Your task to perform on an android device: open app "Spotify: Music and Podcasts" (install if not already installed), go to login, and select forgot password Image 0: 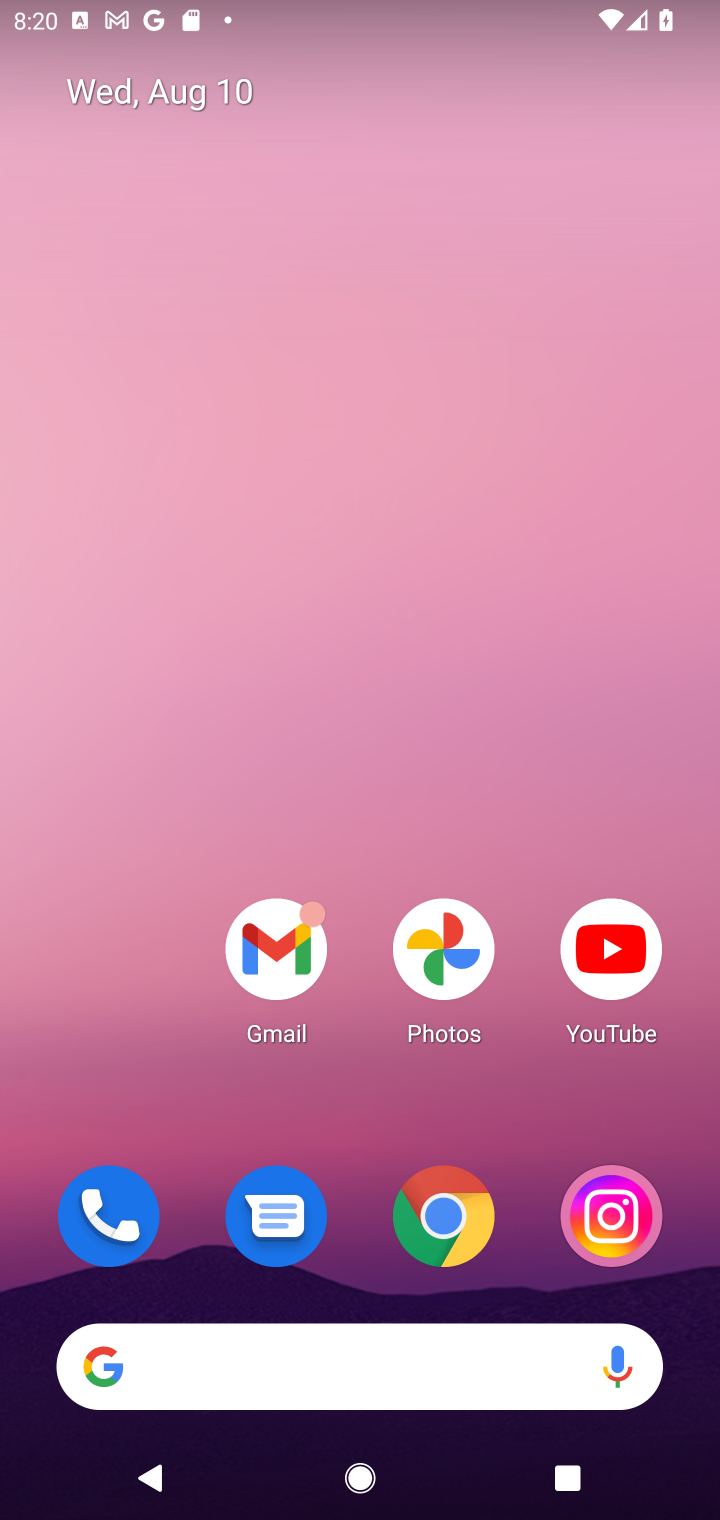
Step 0: drag from (399, 1010) to (542, 0)
Your task to perform on an android device: open app "Spotify: Music and Podcasts" (install if not already installed), go to login, and select forgot password Image 1: 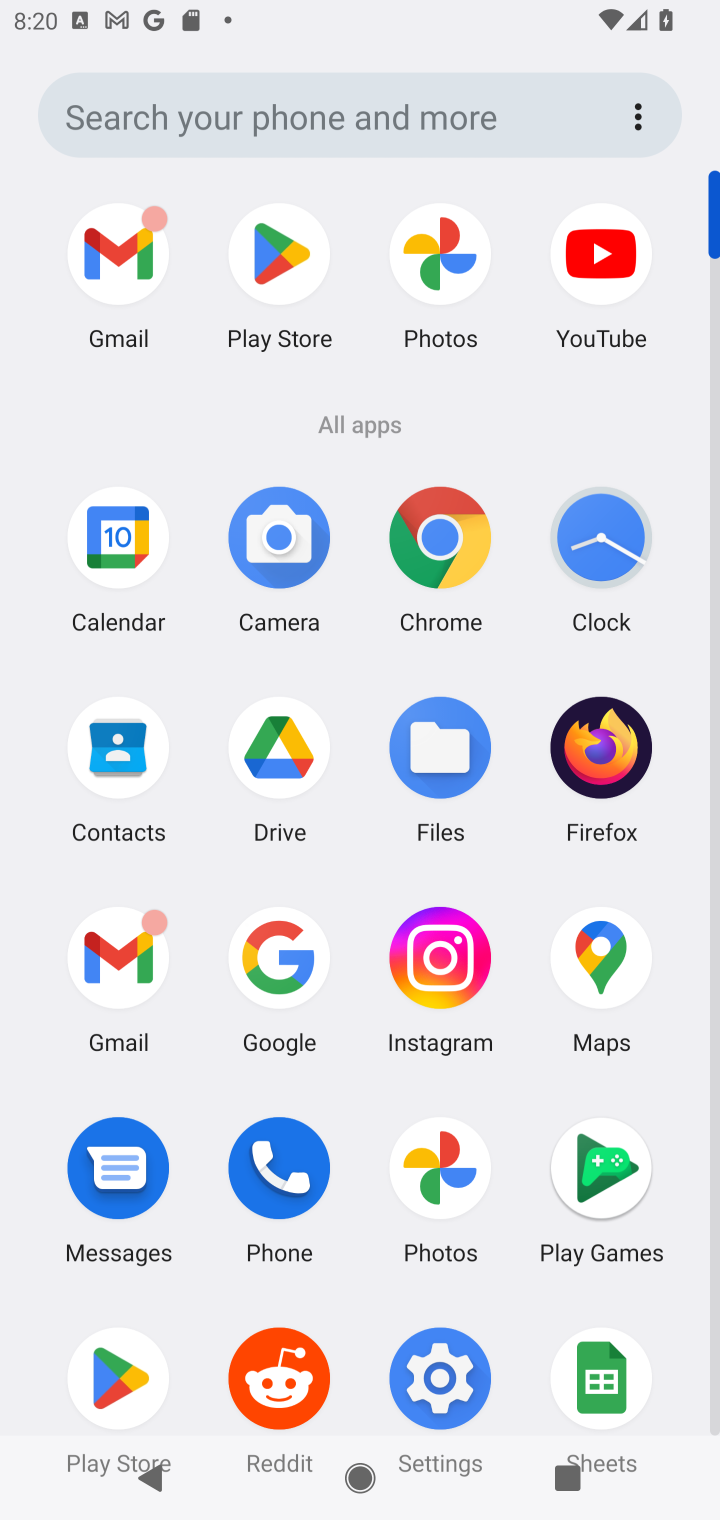
Step 1: click (282, 237)
Your task to perform on an android device: open app "Spotify: Music and Podcasts" (install if not already installed), go to login, and select forgot password Image 2: 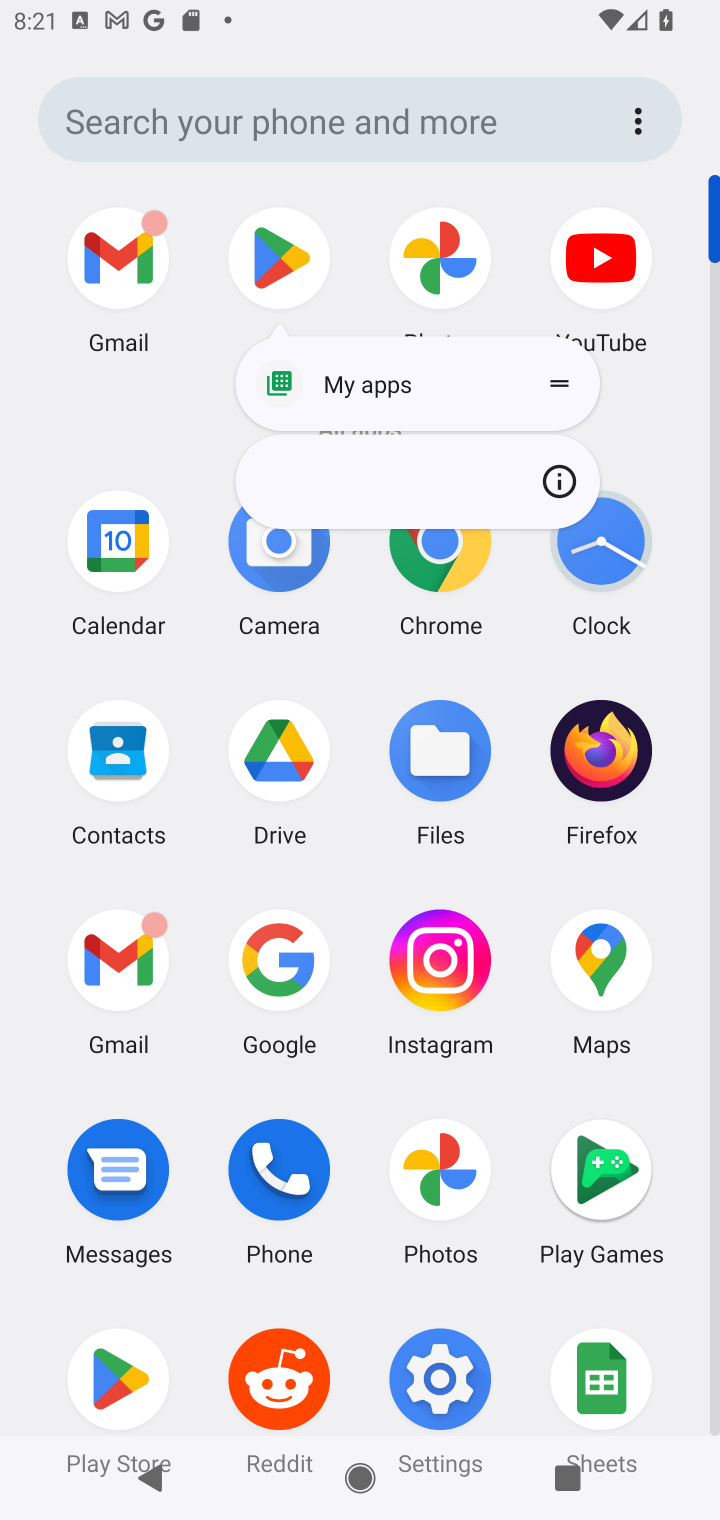
Step 2: click (305, 258)
Your task to perform on an android device: open app "Spotify: Music and Podcasts" (install if not already installed), go to login, and select forgot password Image 3: 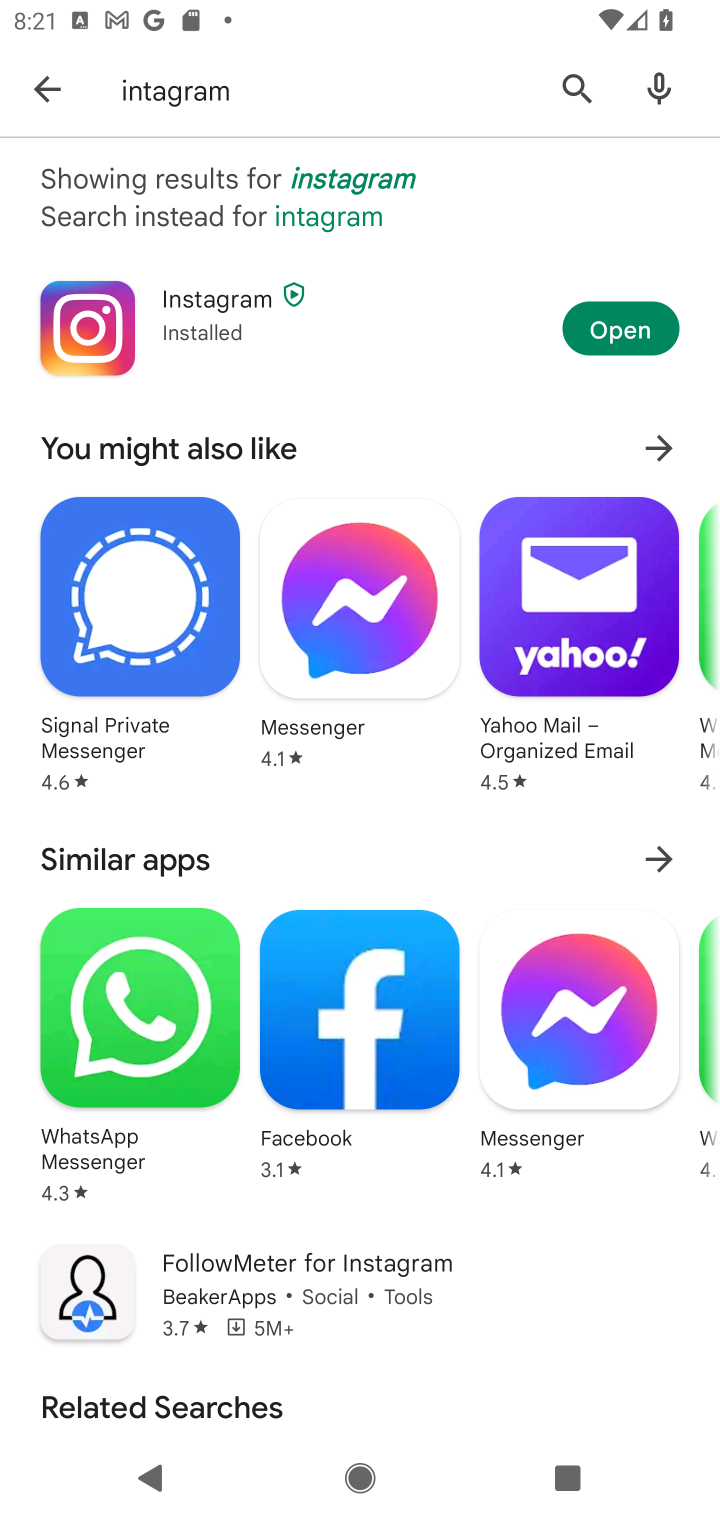
Step 3: click (581, 75)
Your task to perform on an android device: open app "Spotify: Music and Podcasts" (install if not already installed), go to login, and select forgot password Image 4: 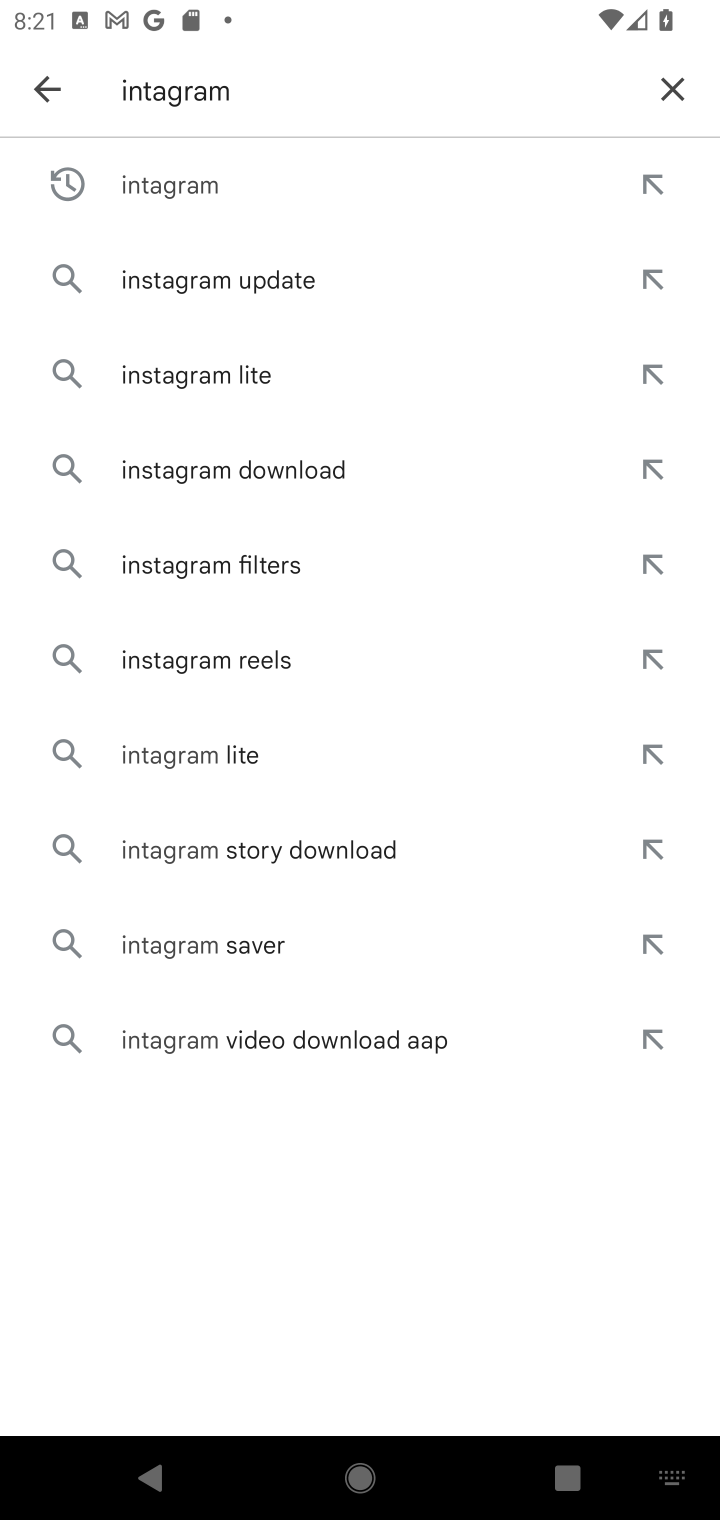
Step 4: click (675, 69)
Your task to perform on an android device: open app "Spotify: Music and Podcasts" (install if not already installed), go to login, and select forgot password Image 5: 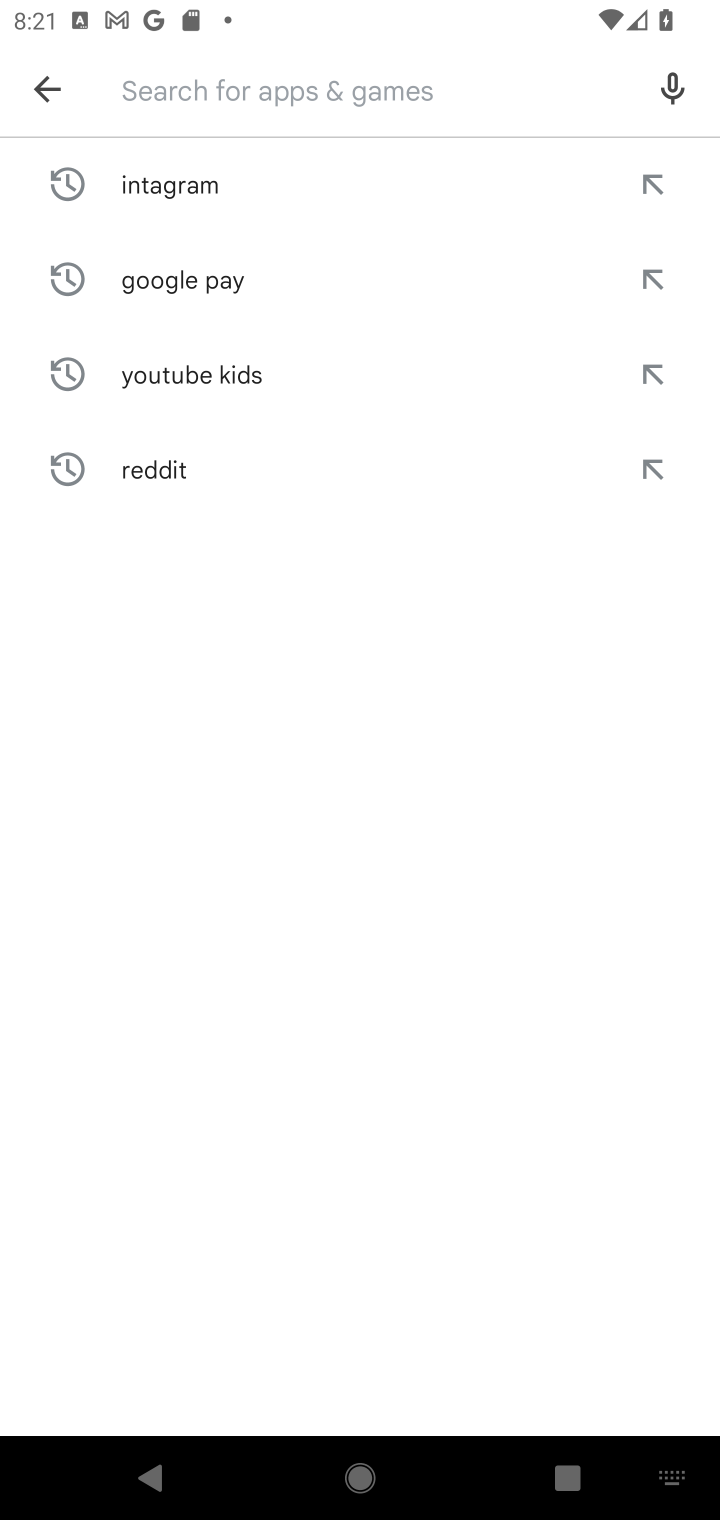
Step 5: click (332, 89)
Your task to perform on an android device: open app "Spotify: Music and Podcasts" (install if not already installed), go to login, and select forgot password Image 6: 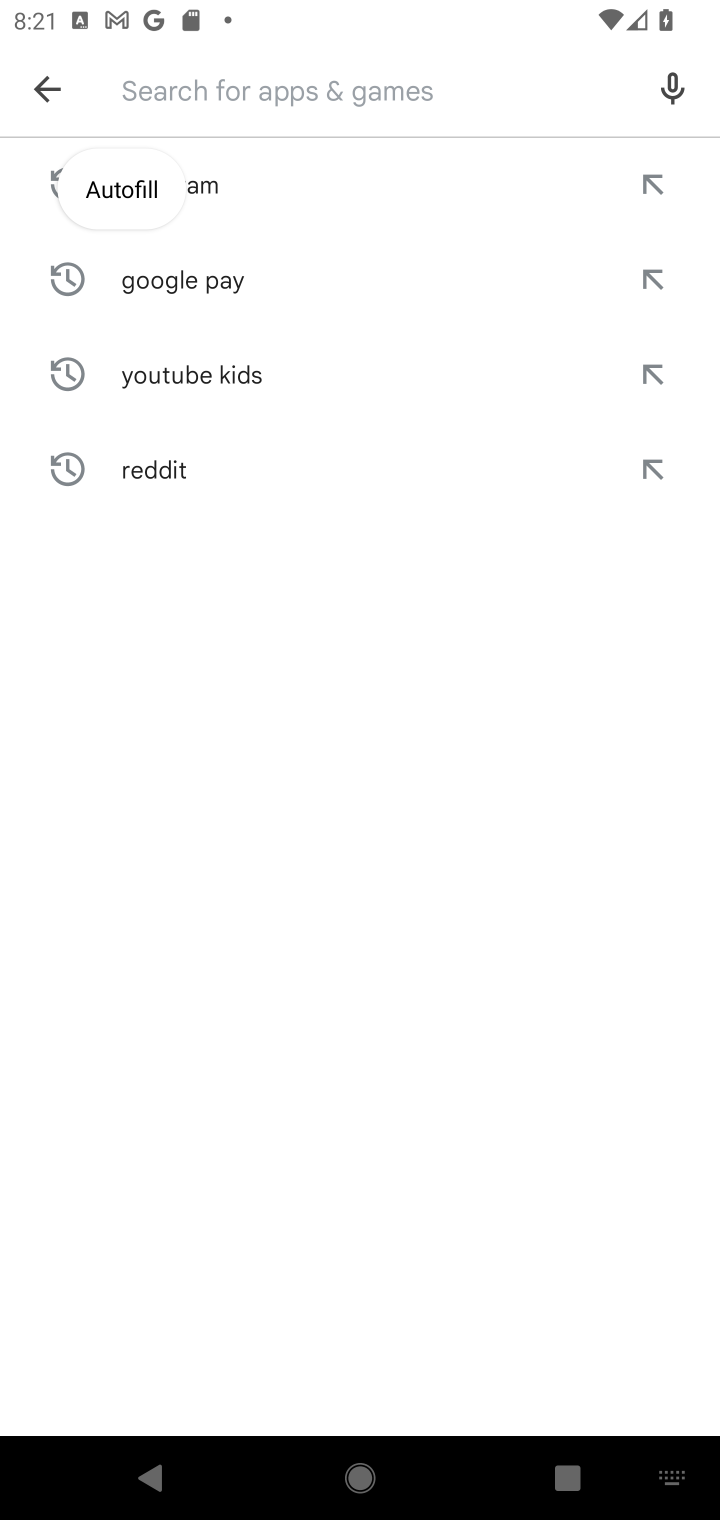
Step 6: type "Spotify"
Your task to perform on an android device: open app "Spotify: Music and Podcasts" (install if not already installed), go to login, and select forgot password Image 7: 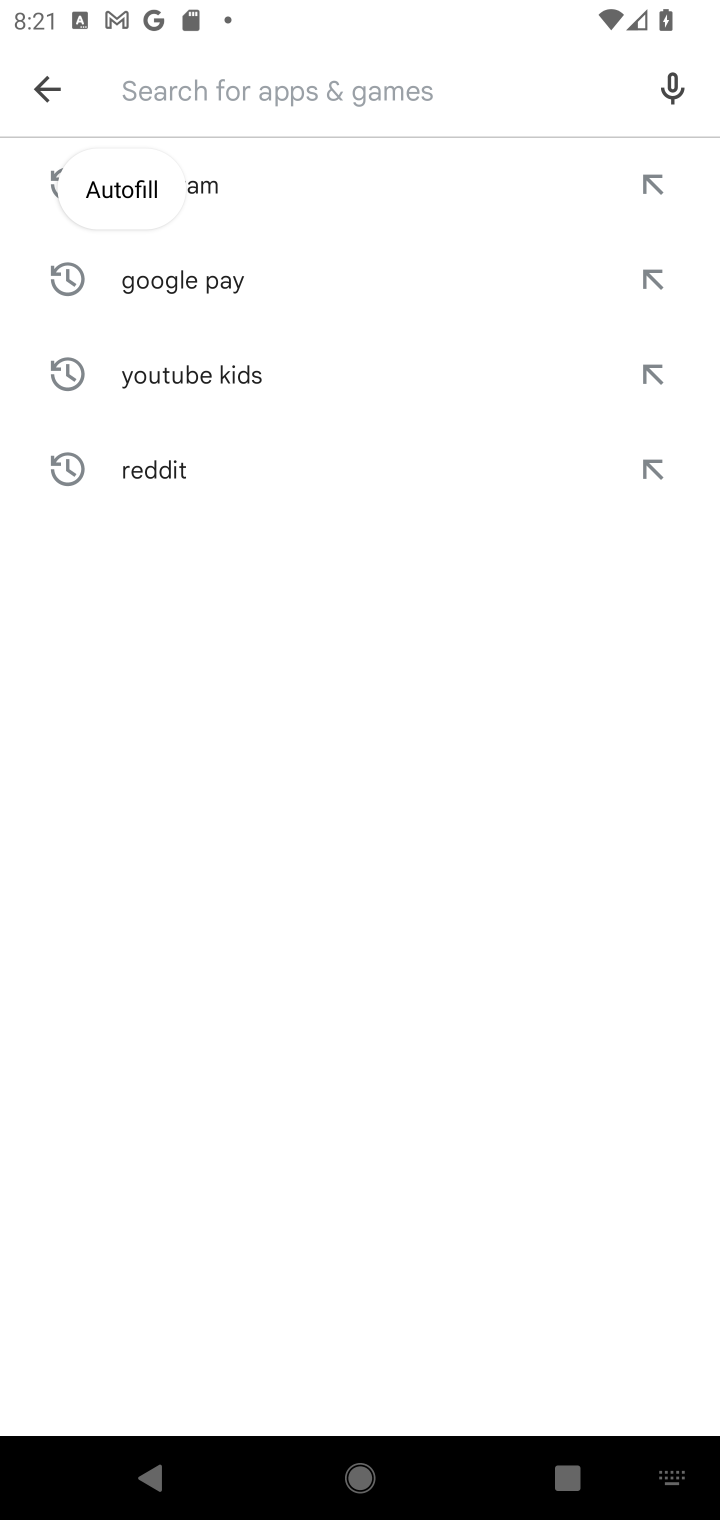
Step 7: click (354, 776)
Your task to perform on an android device: open app "Spotify: Music and Podcasts" (install if not already installed), go to login, and select forgot password Image 8: 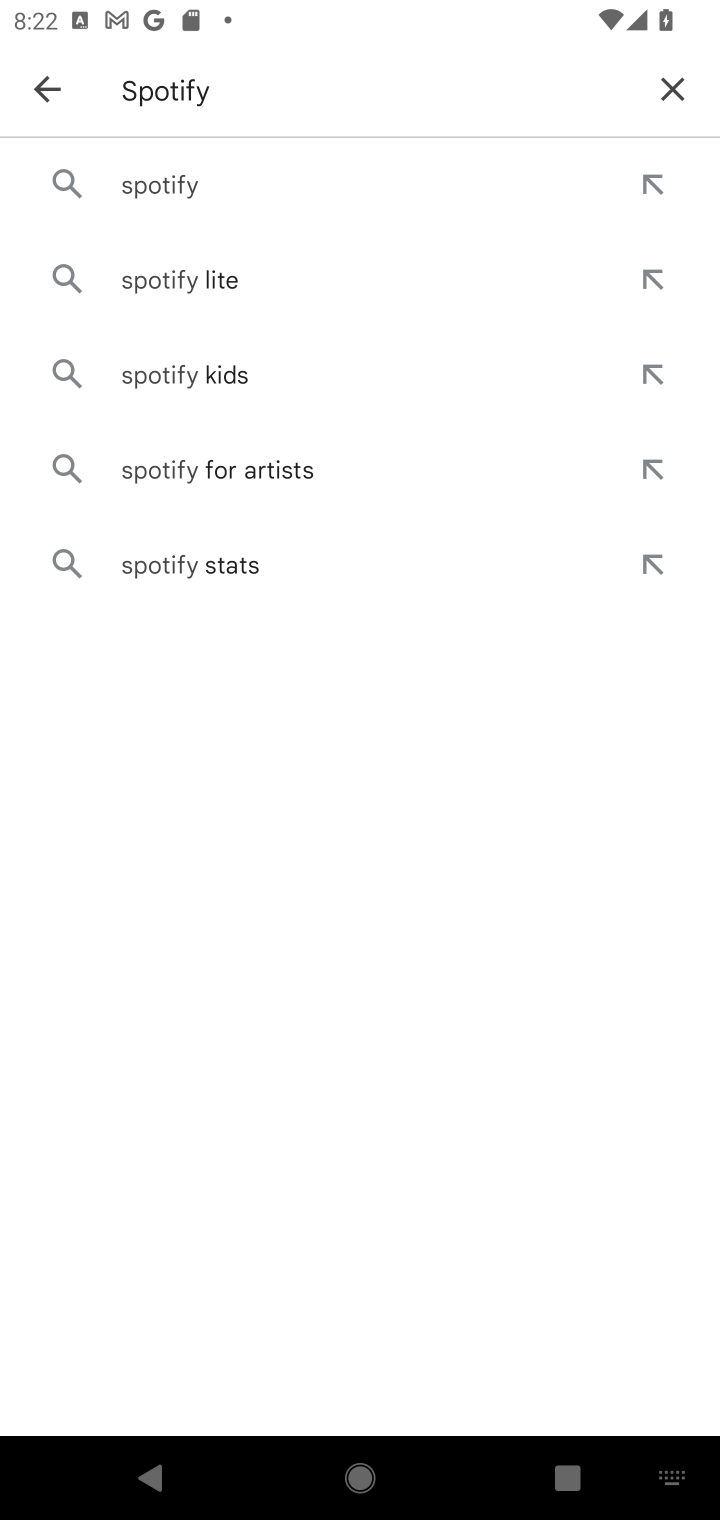
Step 8: click (134, 162)
Your task to perform on an android device: open app "Spotify: Music and Podcasts" (install if not already installed), go to login, and select forgot password Image 9: 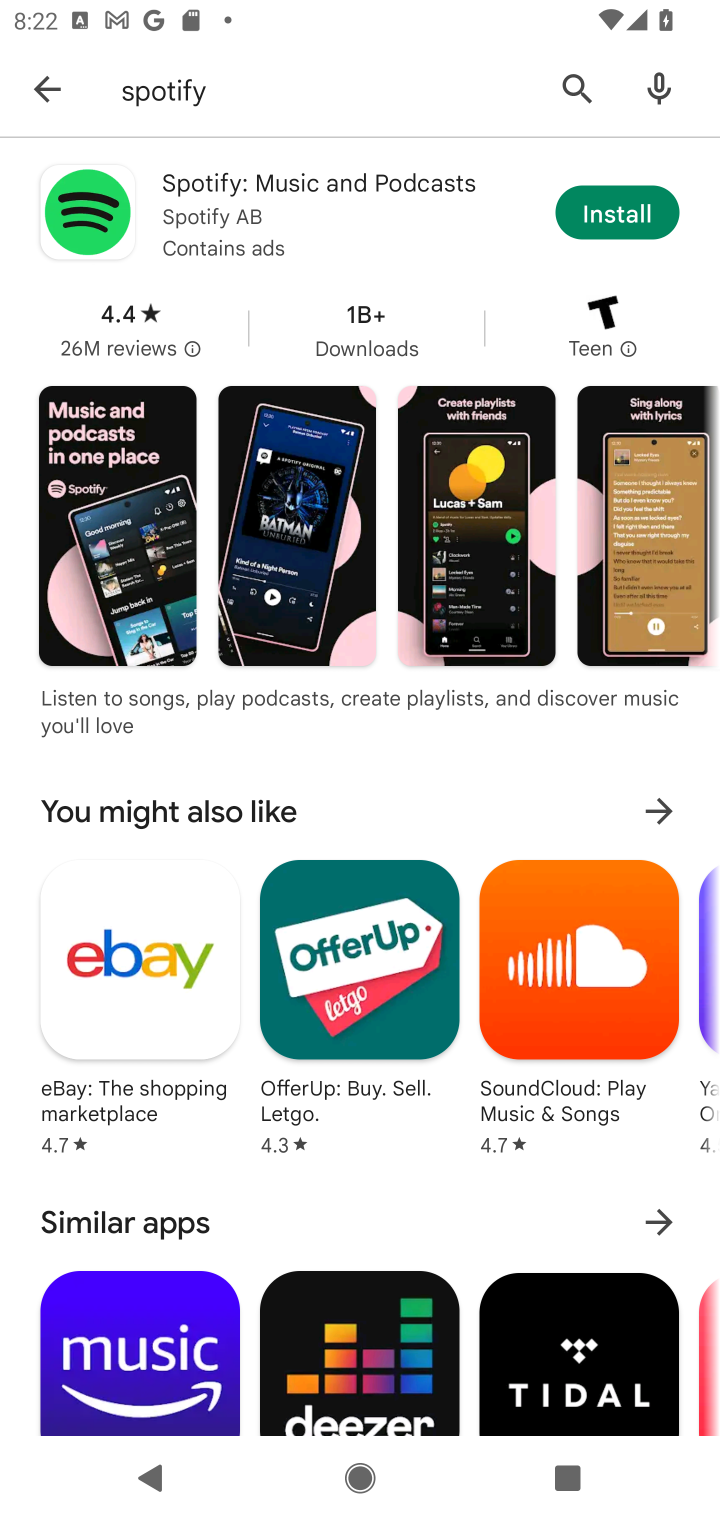
Step 9: click (622, 207)
Your task to perform on an android device: open app "Spotify: Music and Podcasts" (install if not already installed), go to login, and select forgot password Image 10: 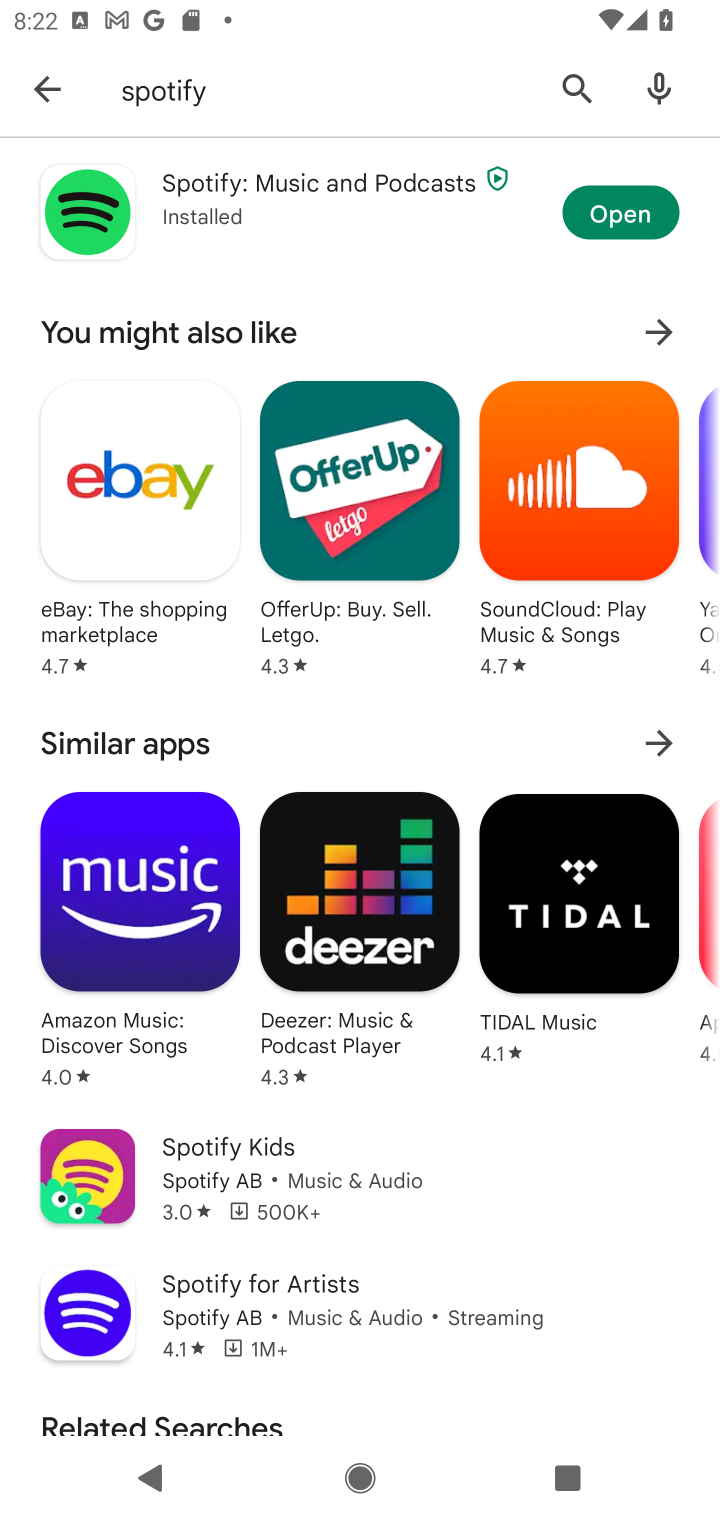
Step 10: click (613, 212)
Your task to perform on an android device: open app "Spotify: Music and Podcasts" (install if not already installed), go to login, and select forgot password Image 11: 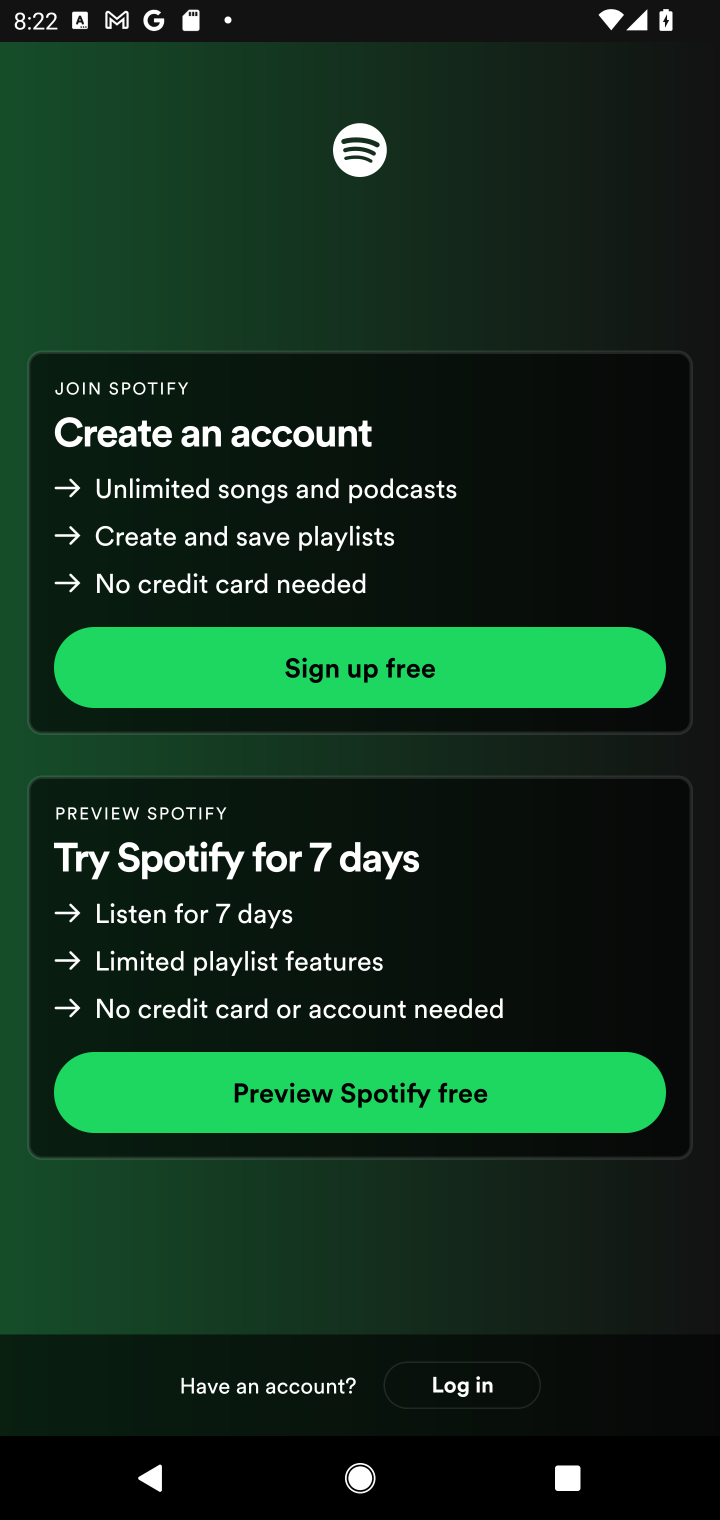
Step 11: click (414, 662)
Your task to perform on an android device: open app "Spotify: Music and Podcasts" (install if not already installed), go to login, and select forgot password Image 12: 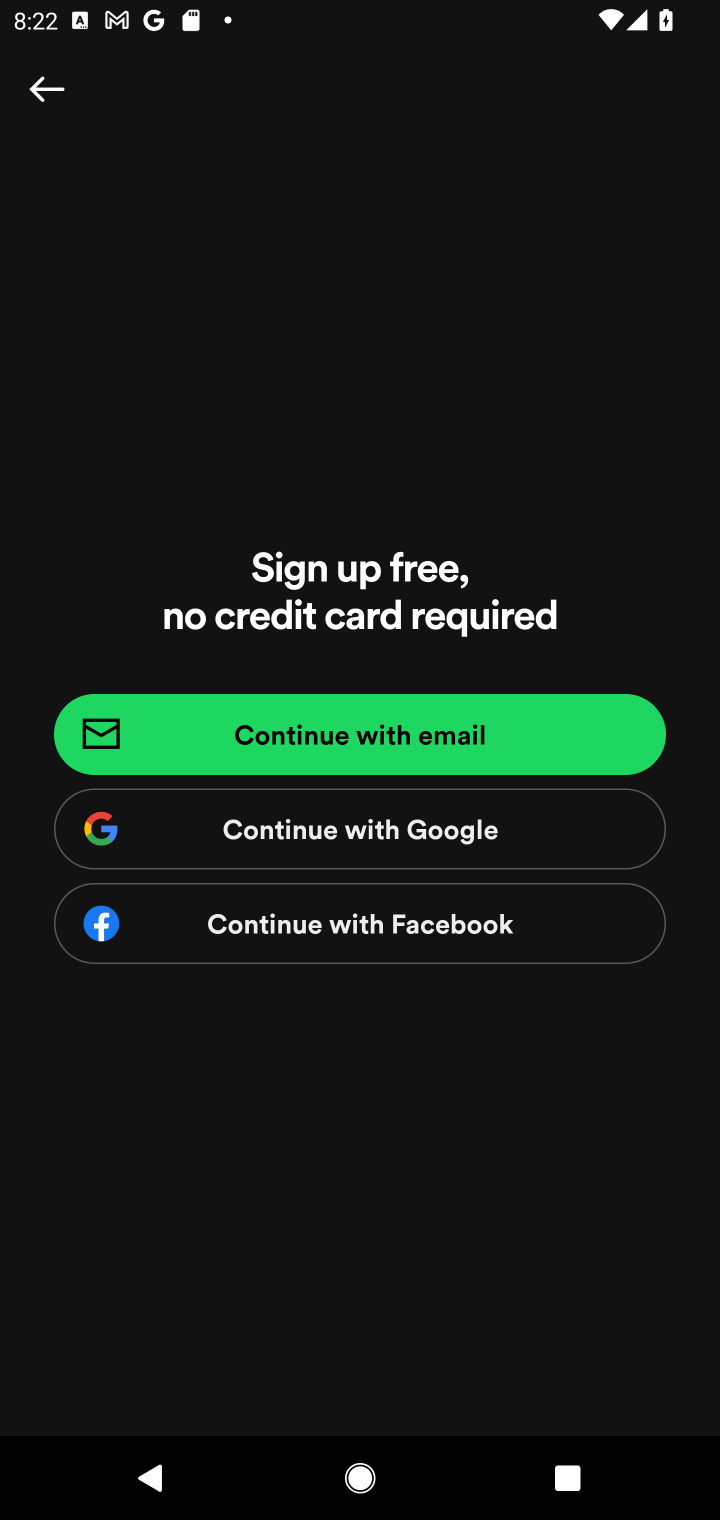
Step 12: click (399, 738)
Your task to perform on an android device: open app "Spotify: Music and Podcasts" (install if not already installed), go to login, and select forgot password Image 13: 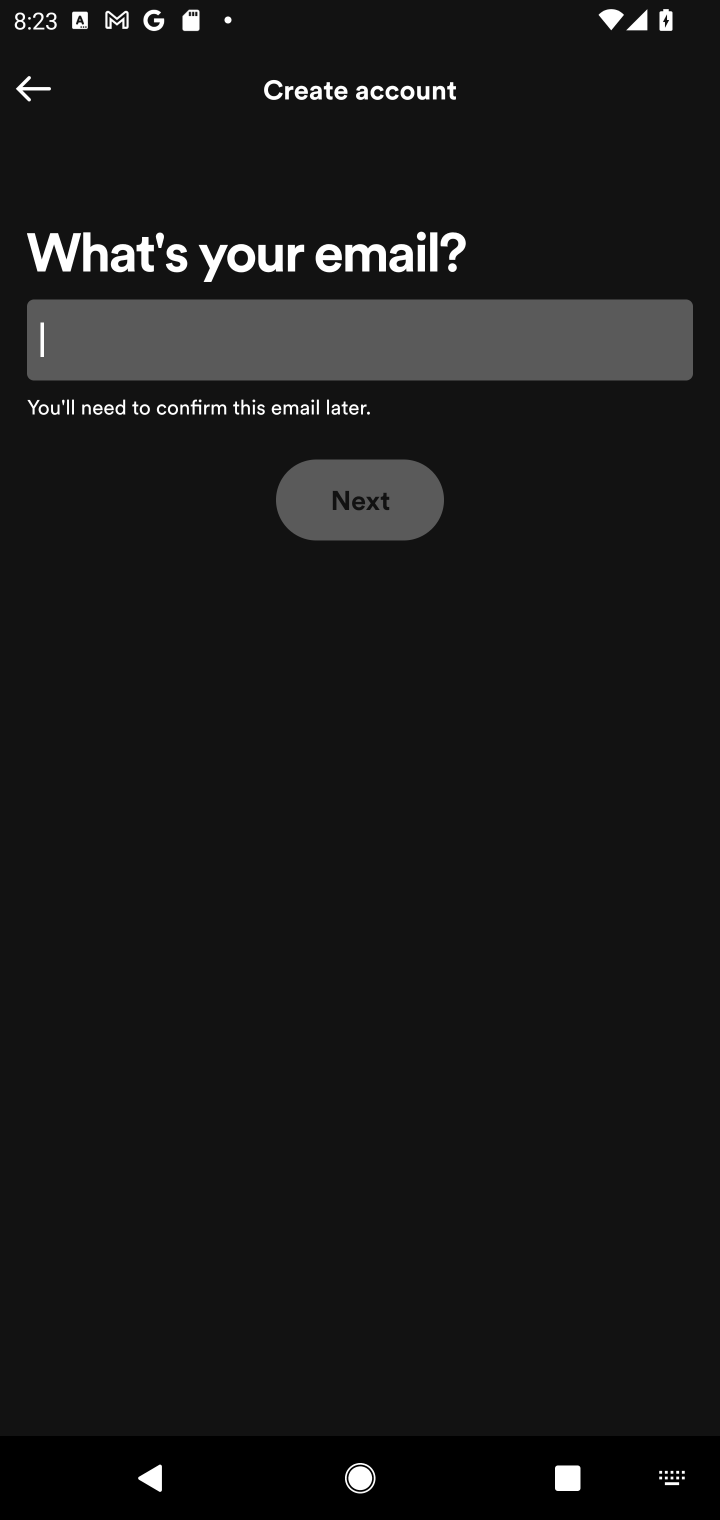
Step 13: task complete